Your task to perform on an android device: Search for "razer blade" on amazon.com, select the first entry, and add it to the cart. Image 0: 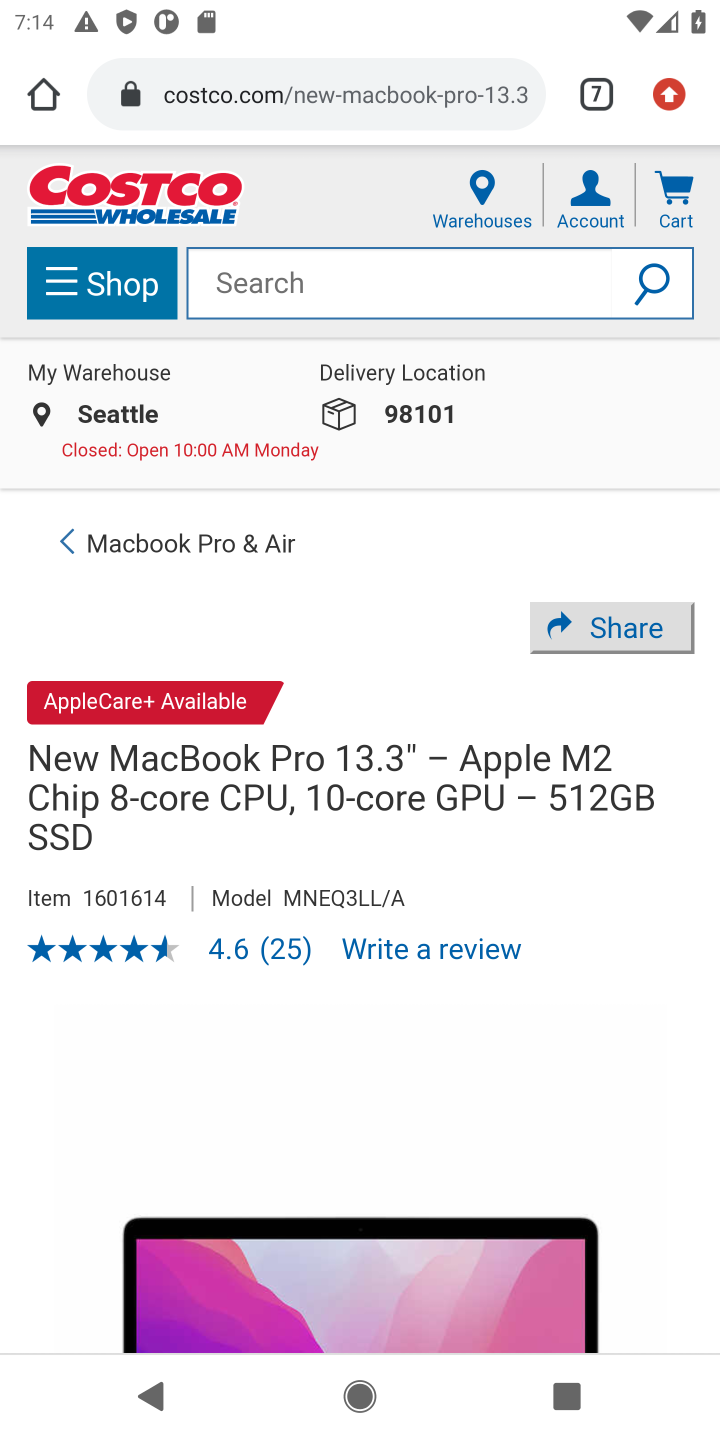
Step 0: task complete